Your task to perform on an android device: Turn on the flashlight Image 0: 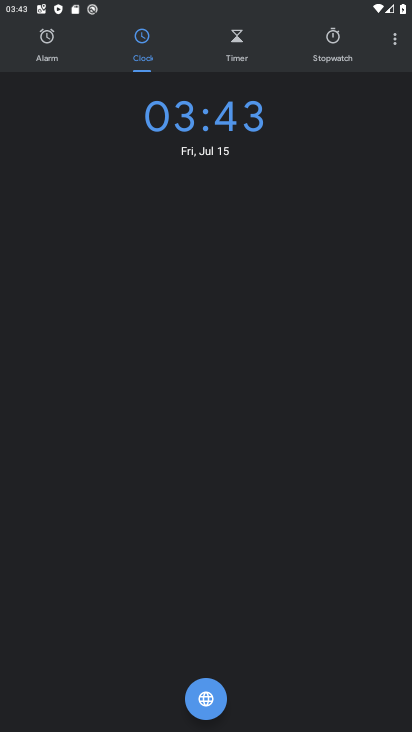
Step 0: press home button
Your task to perform on an android device: Turn on the flashlight Image 1: 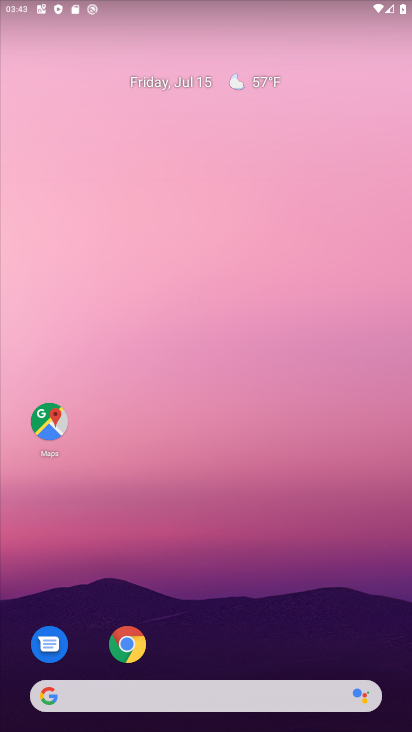
Step 1: drag from (245, 2) to (260, 567)
Your task to perform on an android device: Turn on the flashlight Image 2: 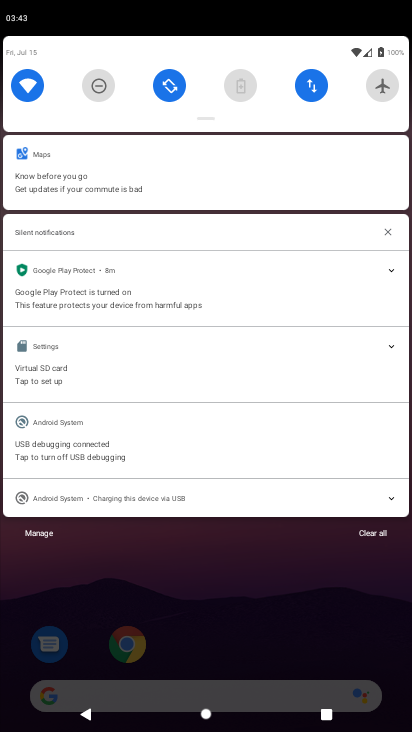
Step 2: drag from (208, 98) to (262, 583)
Your task to perform on an android device: Turn on the flashlight Image 3: 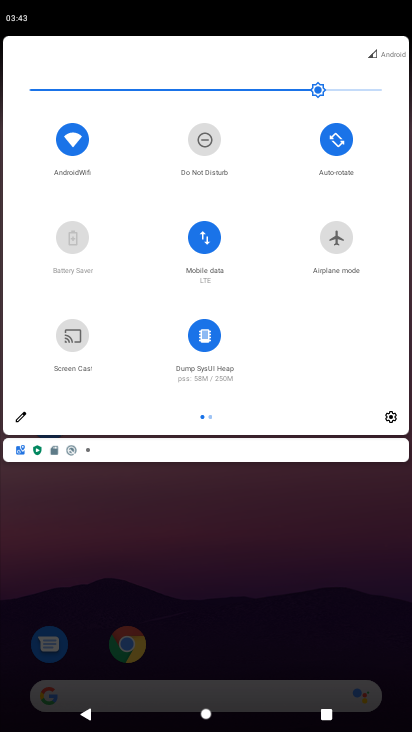
Step 3: click (29, 414)
Your task to perform on an android device: Turn on the flashlight Image 4: 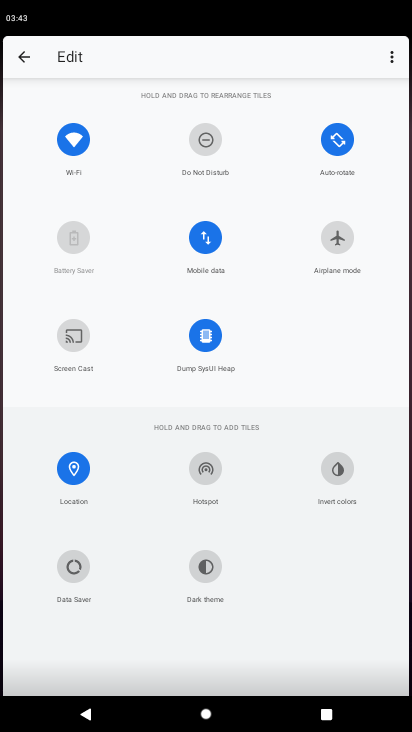
Step 4: task complete